Your task to perform on an android device: visit the assistant section in the google photos Image 0: 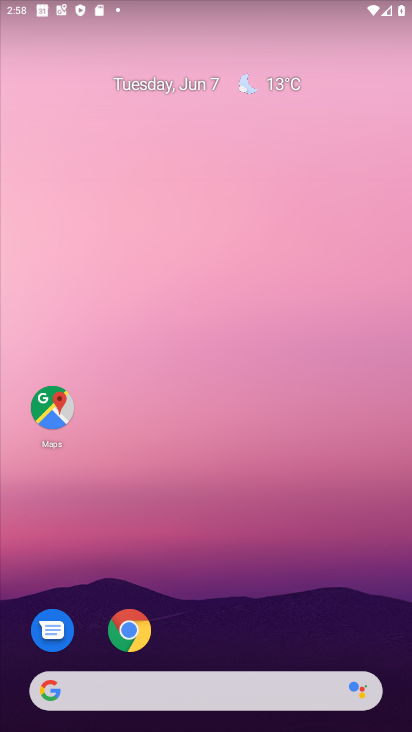
Step 0: drag from (225, 660) to (304, 201)
Your task to perform on an android device: visit the assistant section in the google photos Image 1: 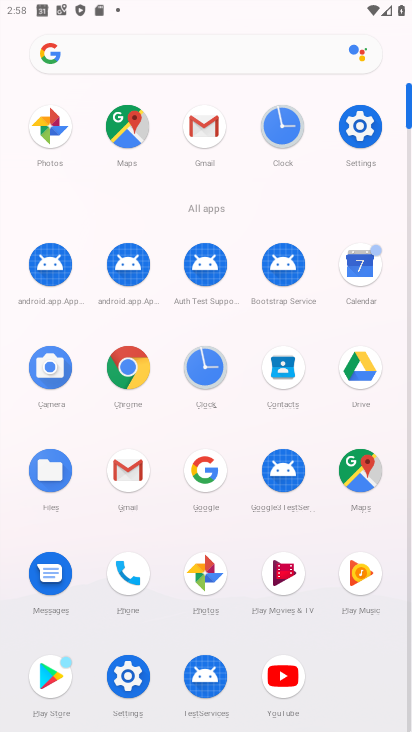
Step 1: click (203, 573)
Your task to perform on an android device: visit the assistant section in the google photos Image 2: 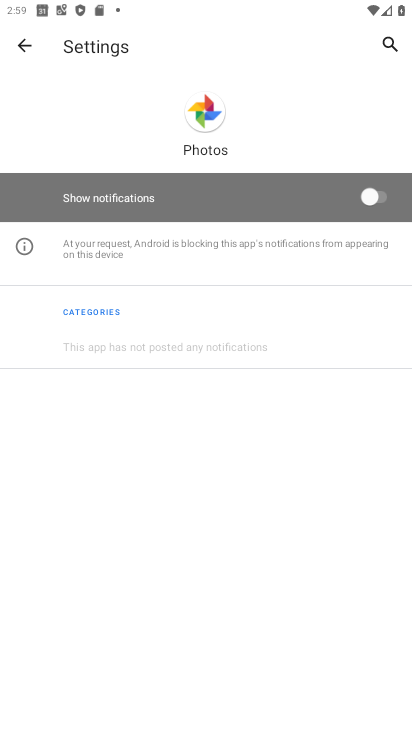
Step 2: click (24, 45)
Your task to perform on an android device: visit the assistant section in the google photos Image 3: 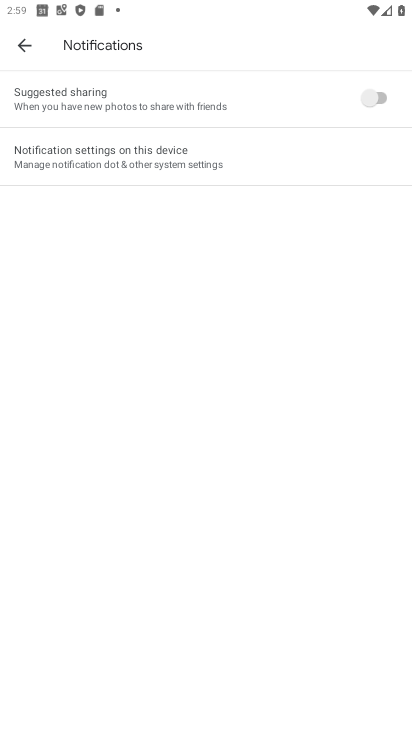
Step 3: click (24, 48)
Your task to perform on an android device: visit the assistant section in the google photos Image 4: 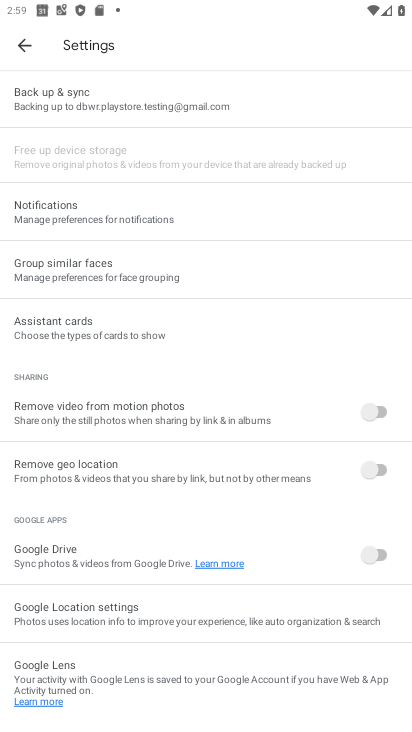
Step 4: click (19, 46)
Your task to perform on an android device: visit the assistant section in the google photos Image 5: 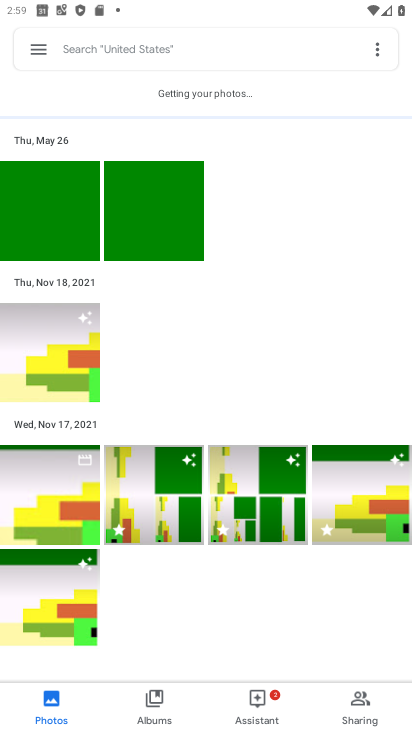
Step 5: click (259, 712)
Your task to perform on an android device: visit the assistant section in the google photos Image 6: 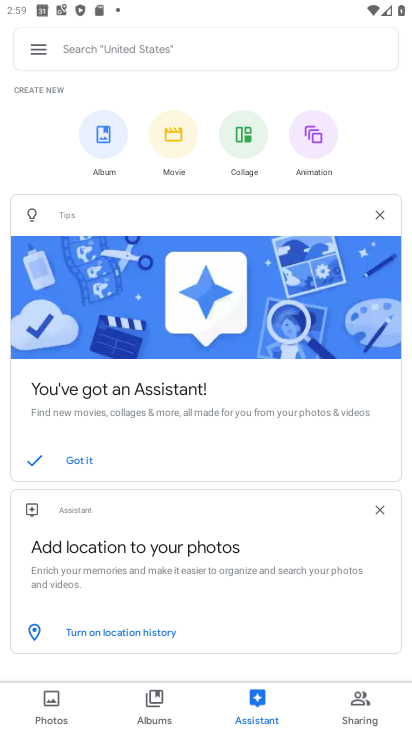
Step 6: task complete